Your task to perform on an android device: Open the calendar and show me this week's events? Image 0: 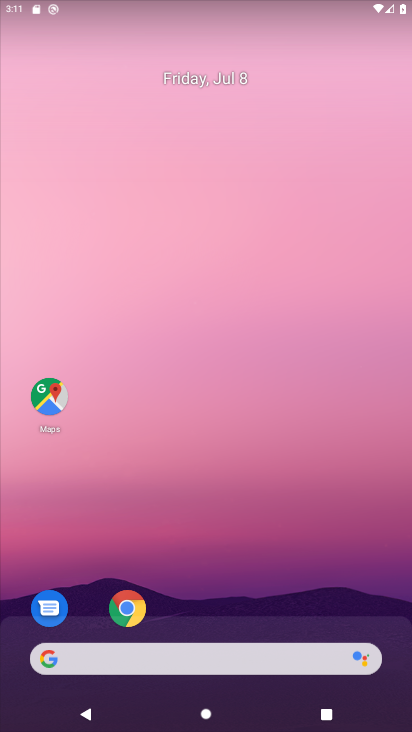
Step 0: click (205, 708)
Your task to perform on an android device: Open the calendar and show me this week's events? Image 1: 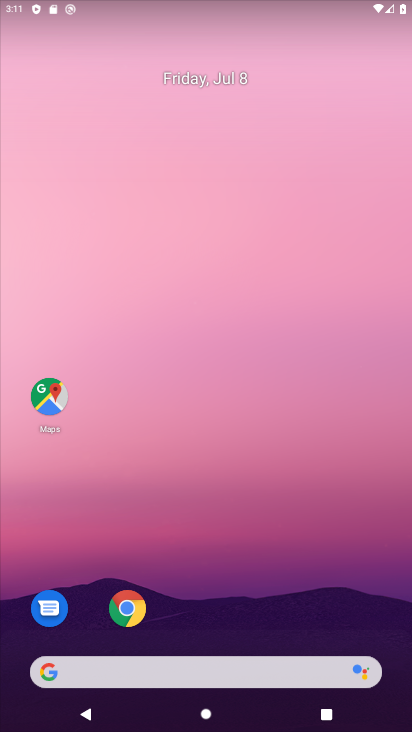
Step 1: drag from (267, 575) to (289, 40)
Your task to perform on an android device: Open the calendar and show me this week's events? Image 2: 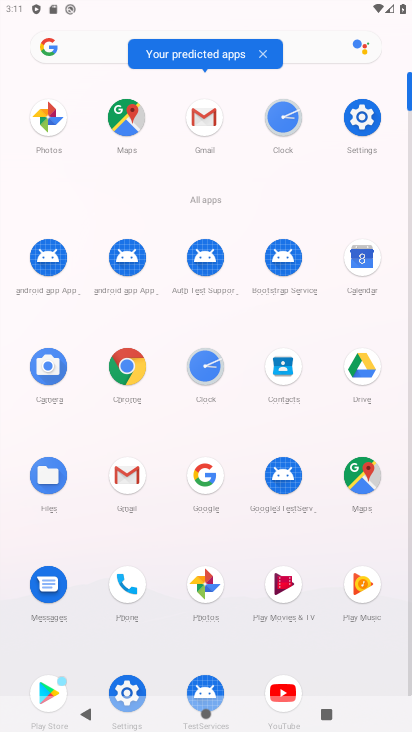
Step 2: click (359, 246)
Your task to perform on an android device: Open the calendar and show me this week's events? Image 3: 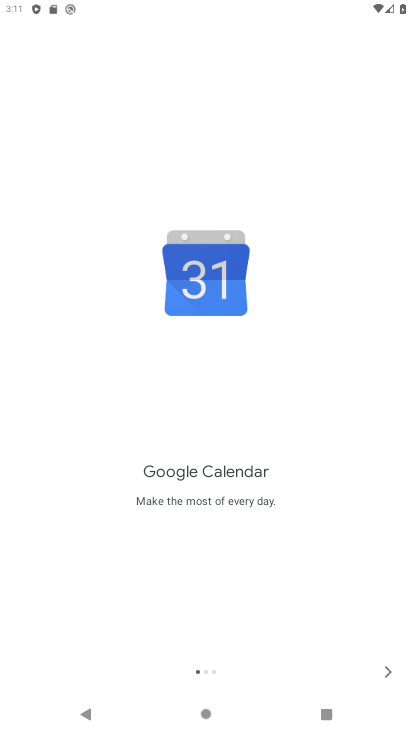
Step 3: click (392, 668)
Your task to perform on an android device: Open the calendar and show me this week's events? Image 4: 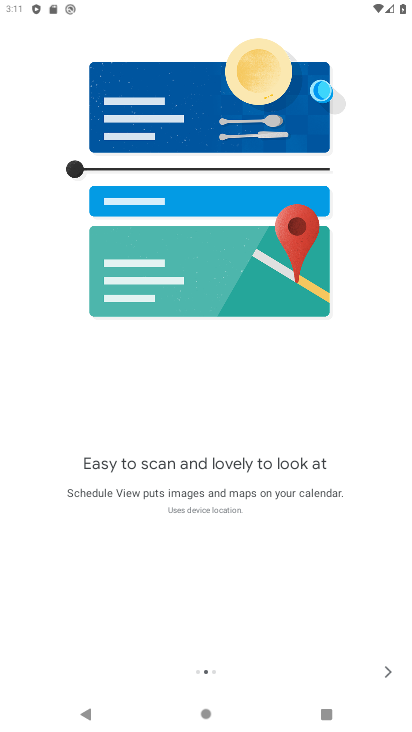
Step 4: click (392, 668)
Your task to perform on an android device: Open the calendar and show me this week's events? Image 5: 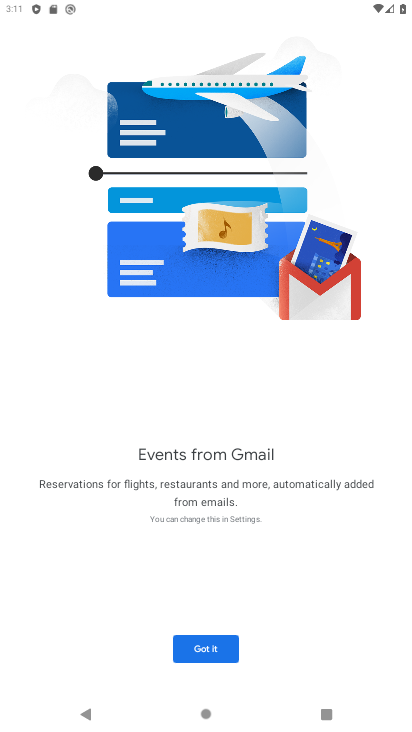
Step 5: click (225, 641)
Your task to perform on an android device: Open the calendar and show me this week's events? Image 6: 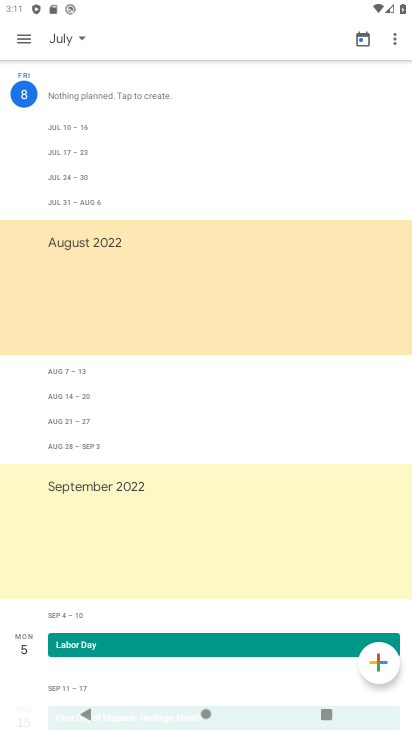
Step 6: click (26, 33)
Your task to perform on an android device: Open the calendar and show me this week's events? Image 7: 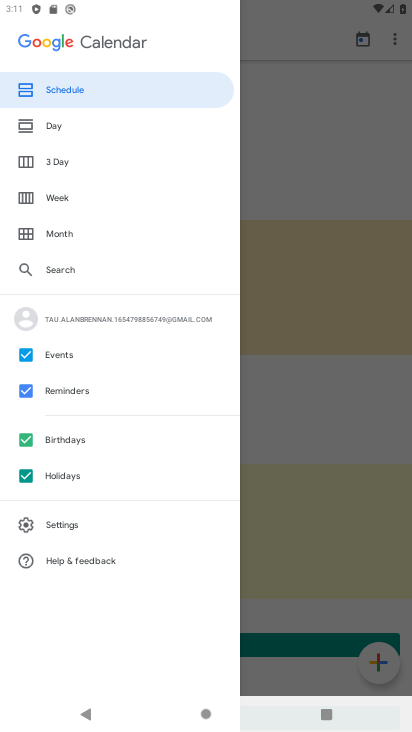
Step 7: click (95, 82)
Your task to perform on an android device: Open the calendar and show me this week's events? Image 8: 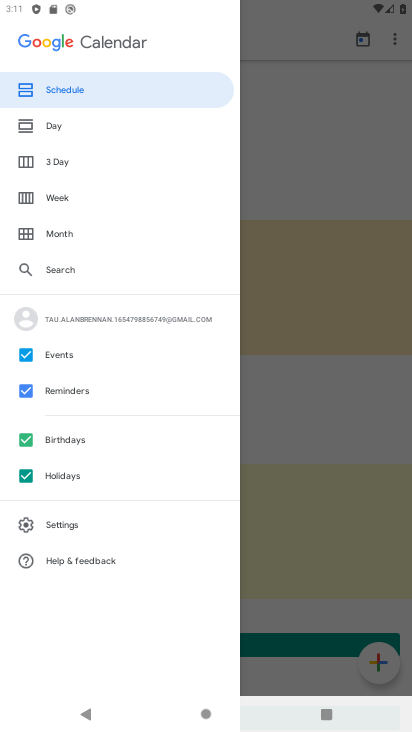
Step 8: click (290, 120)
Your task to perform on an android device: Open the calendar and show me this week's events? Image 9: 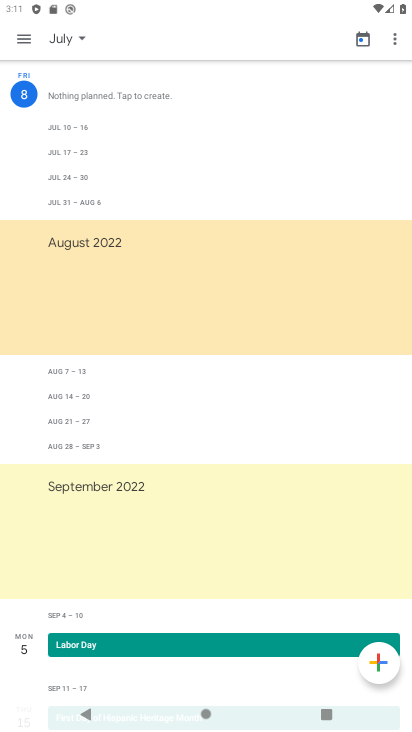
Step 9: task complete